Your task to perform on an android device: Open battery settings Image 0: 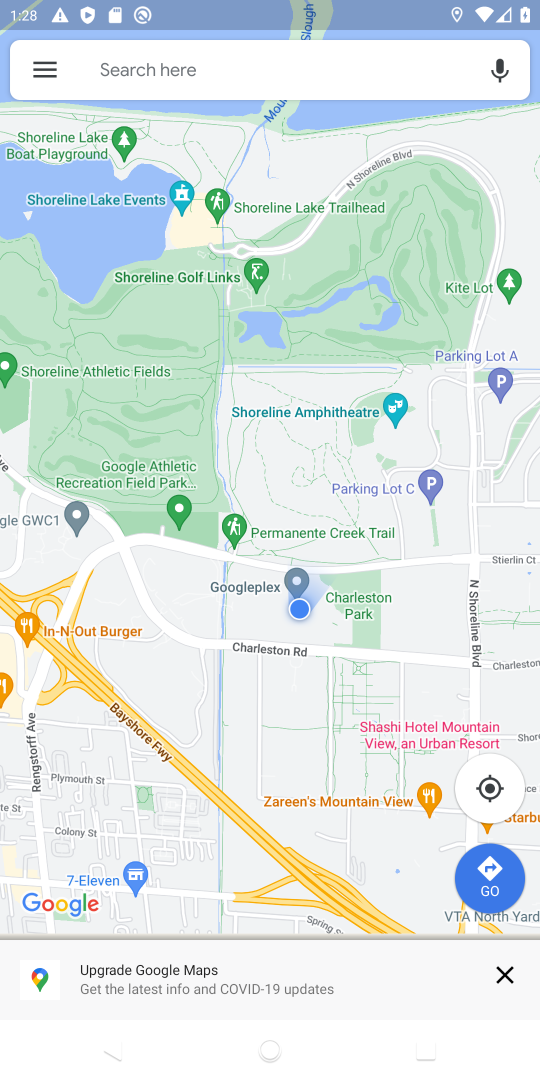
Step 0: press home button
Your task to perform on an android device: Open battery settings Image 1: 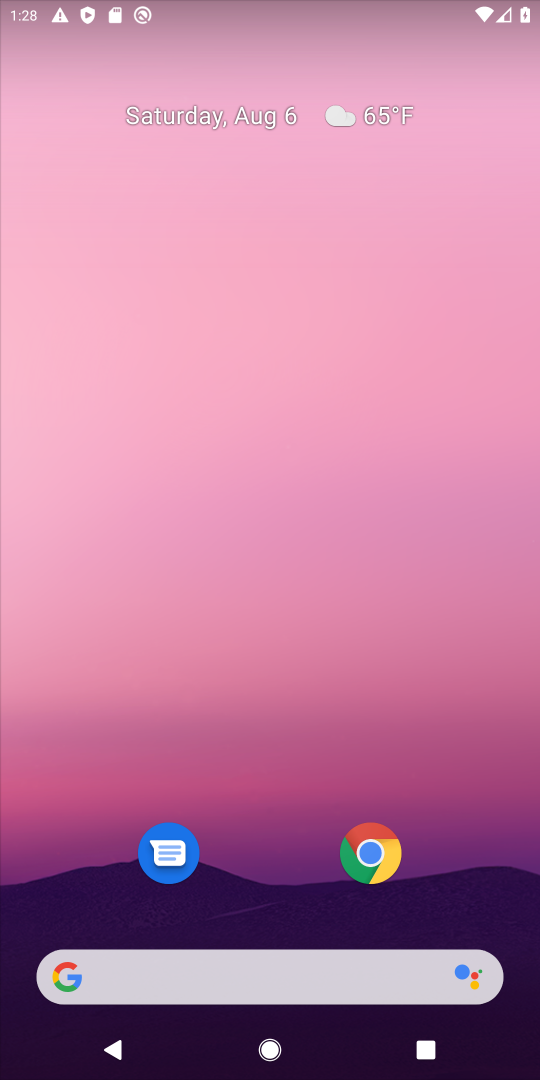
Step 1: drag from (512, 909) to (460, 155)
Your task to perform on an android device: Open battery settings Image 2: 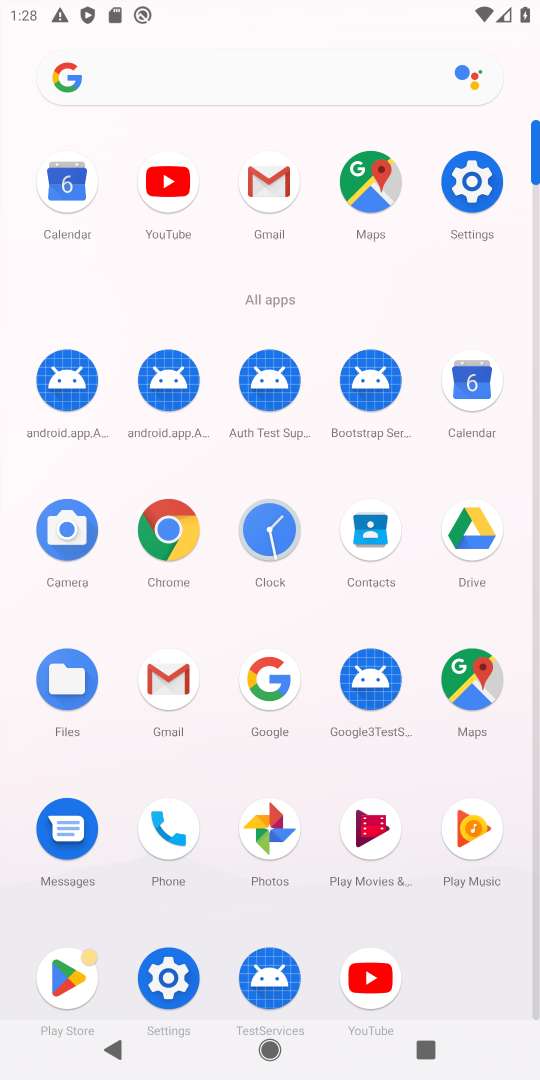
Step 2: click (165, 980)
Your task to perform on an android device: Open battery settings Image 3: 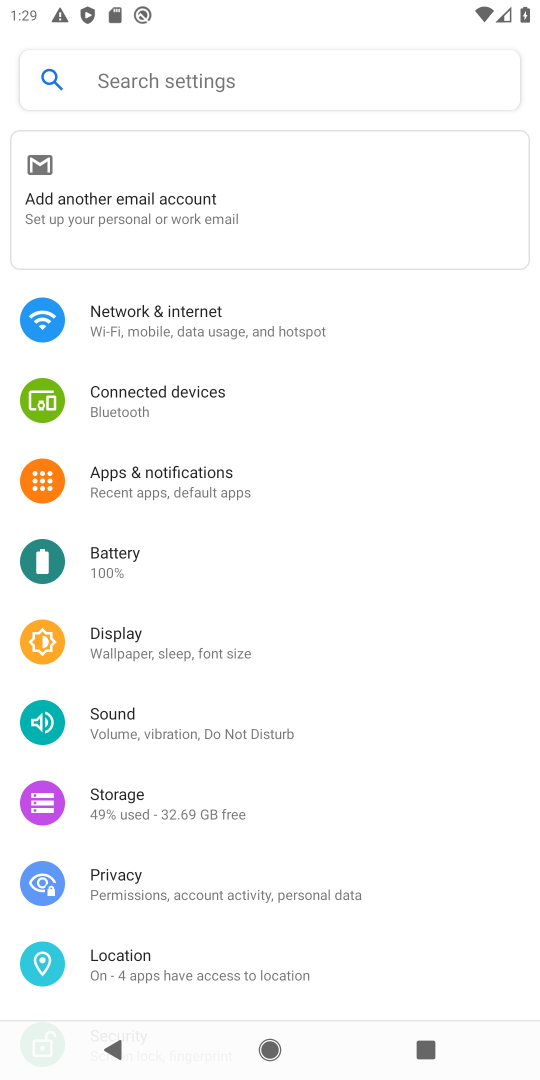
Step 3: click (115, 558)
Your task to perform on an android device: Open battery settings Image 4: 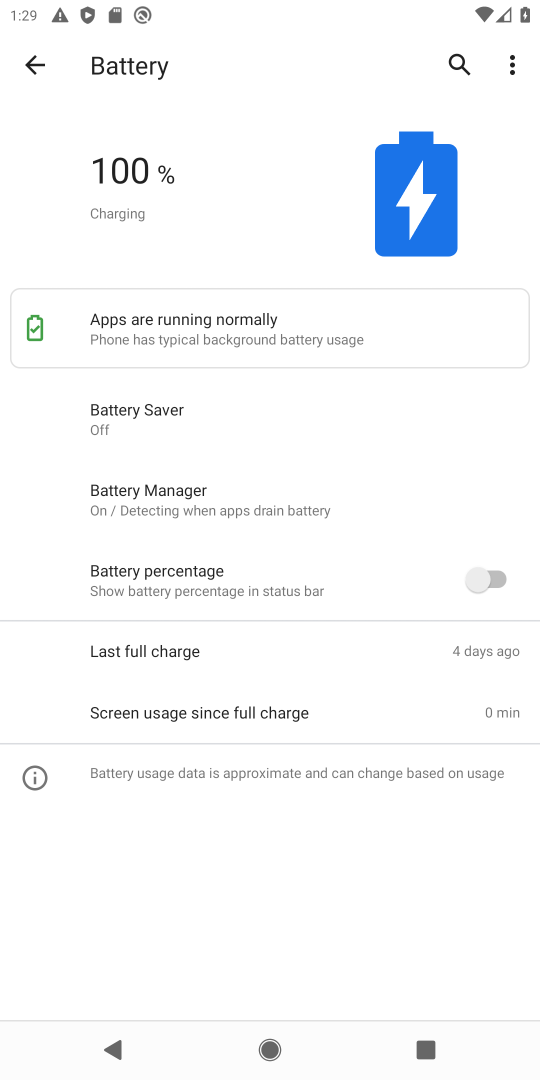
Step 4: task complete